Your task to perform on an android device: see creations saved in the google photos Image 0: 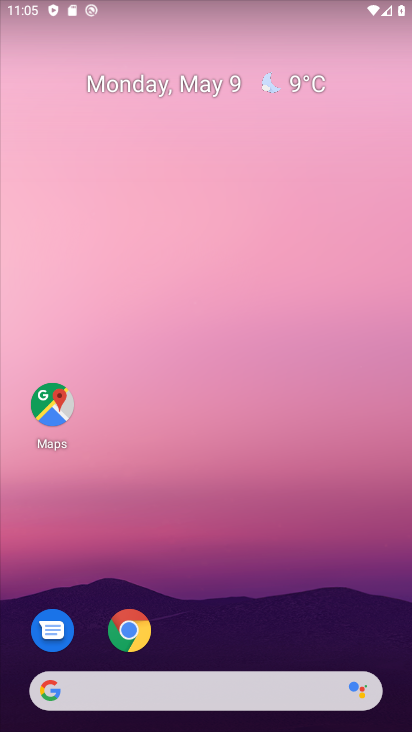
Step 0: click (206, 131)
Your task to perform on an android device: see creations saved in the google photos Image 1: 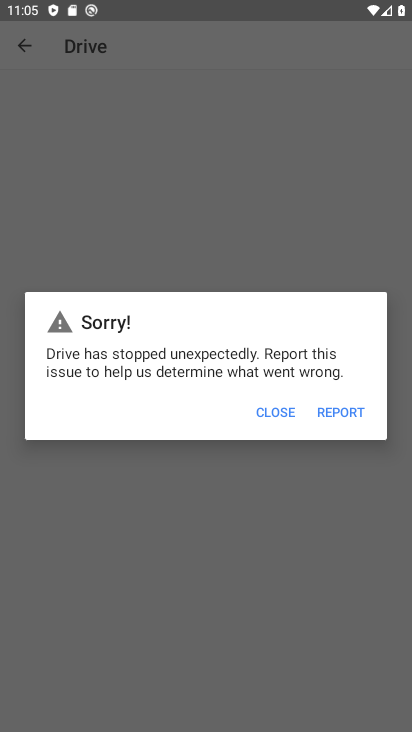
Step 1: press home button
Your task to perform on an android device: see creations saved in the google photos Image 2: 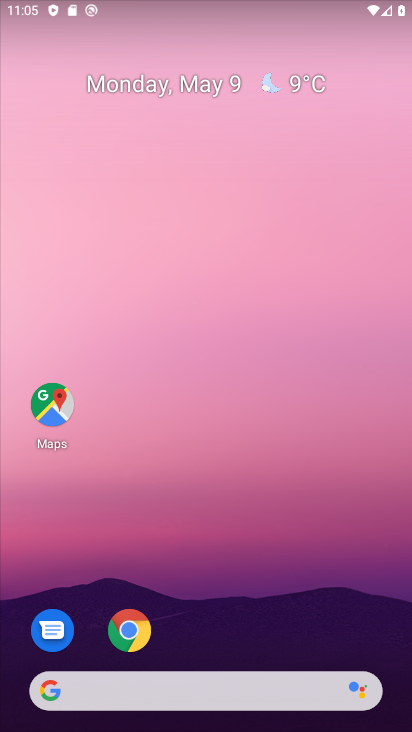
Step 2: drag from (274, 595) to (241, 152)
Your task to perform on an android device: see creations saved in the google photos Image 3: 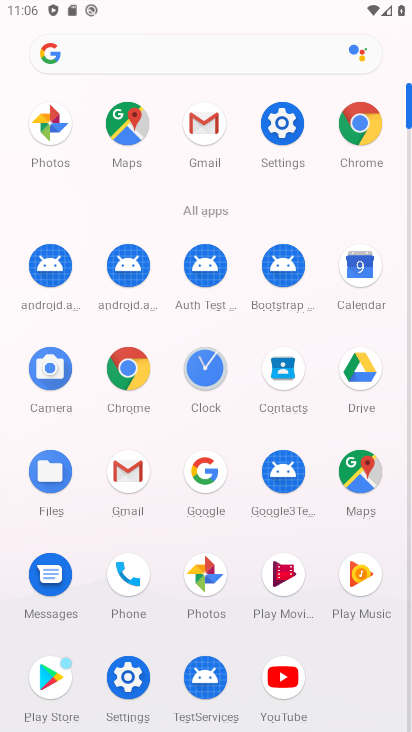
Step 3: click (206, 581)
Your task to perform on an android device: see creations saved in the google photos Image 4: 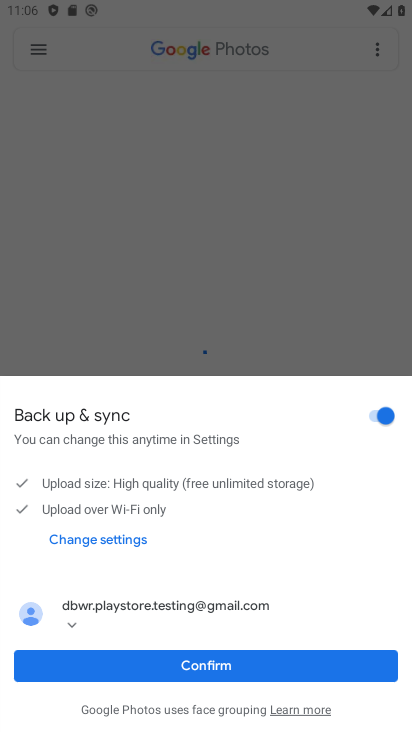
Step 4: click (176, 662)
Your task to perform on an android device: see creations saved in the google photos Image 5: 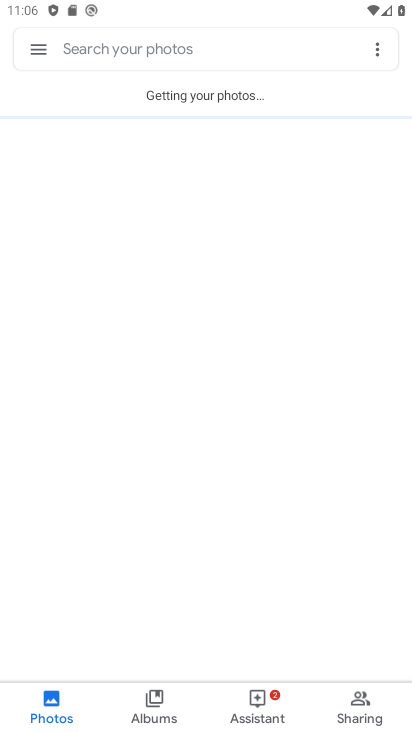
Step 5: click (110, 41)
Your task to perform on an android device: see creations saved in the google photos Image 6: 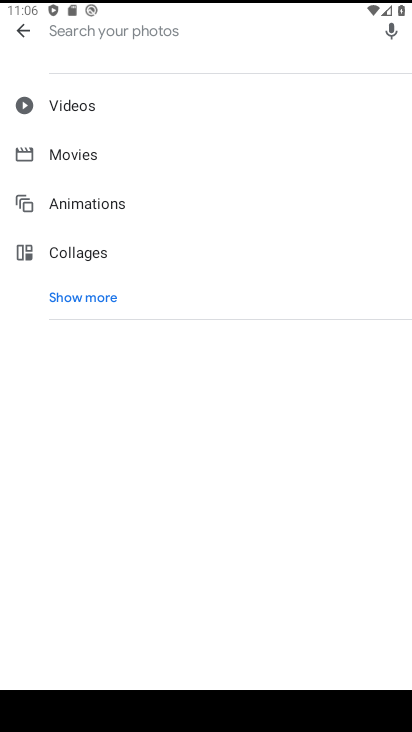
Step 6: type "creation"
Your task to perform on an android device: see creations saved in the google photos Image 7: 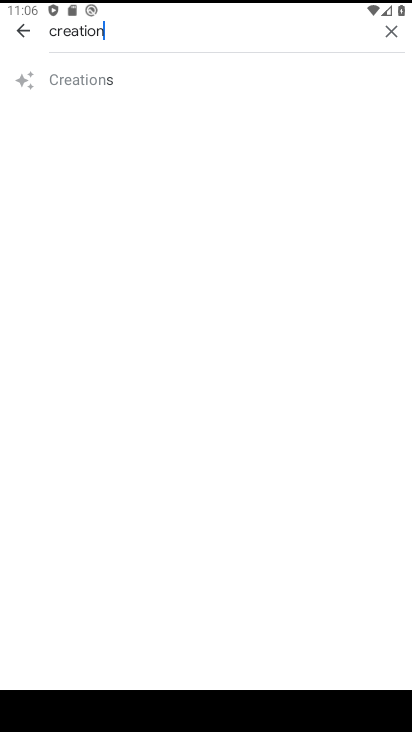
Step 7: click (80, 79)
Your task to perform on an android device: see creations saved in the google photos Image 8: 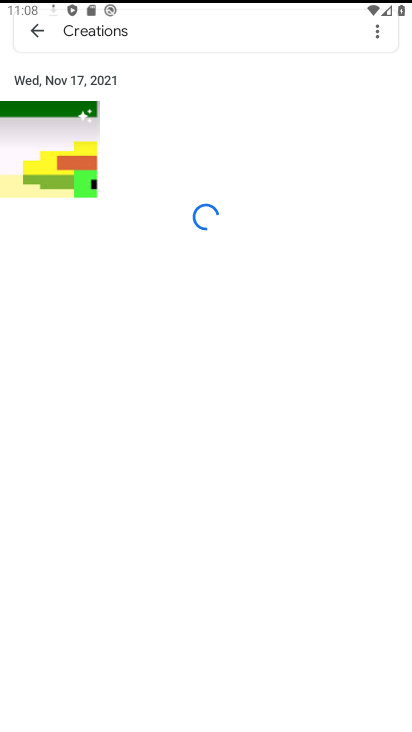
Step 8: task complete